Your task to perform on an android device: Open Google Chrome Image 0: 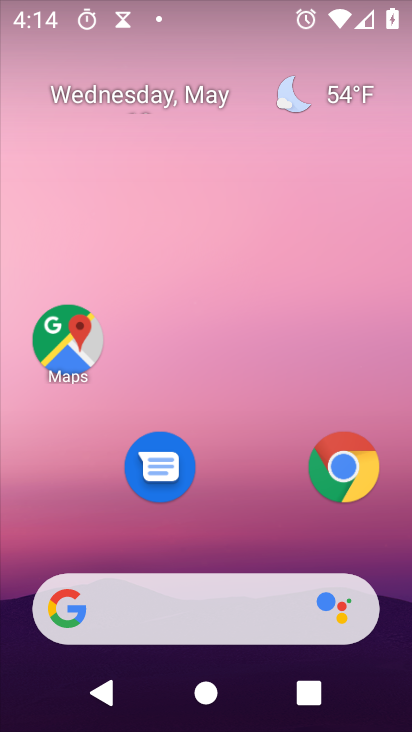
Step 0: click (359, 451)
Your task to perform on an android device: Open Google Chrome Image 1: 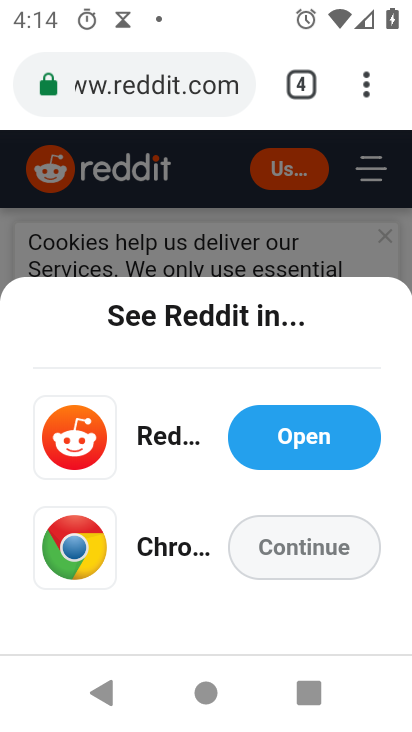
Step 1: task complete